Your task to perform on an android device: Go to Android settings Image 0: 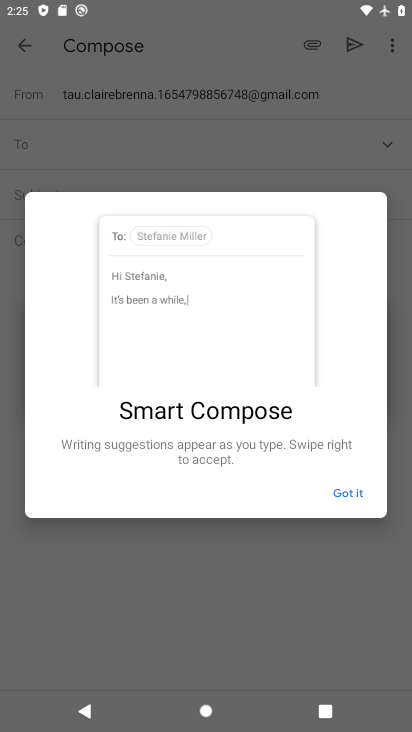
Step 0: drag from (217, 631) to (238, 21)
Your task to perform on an android device: Go to Android settings Image 1: 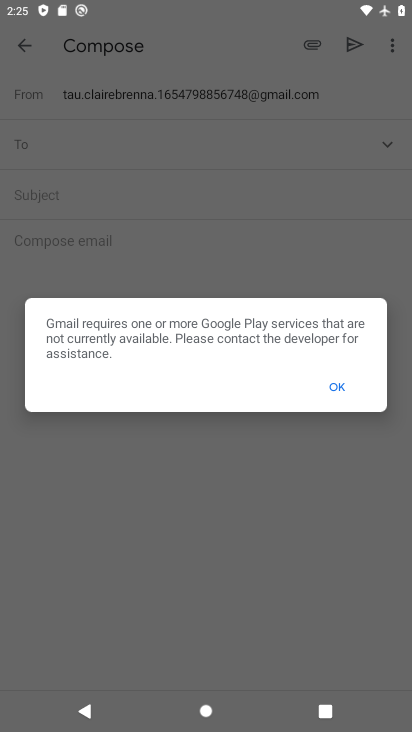
Step 1: press home button
Your task to perform on an android device: Go to Android settings Image 2: 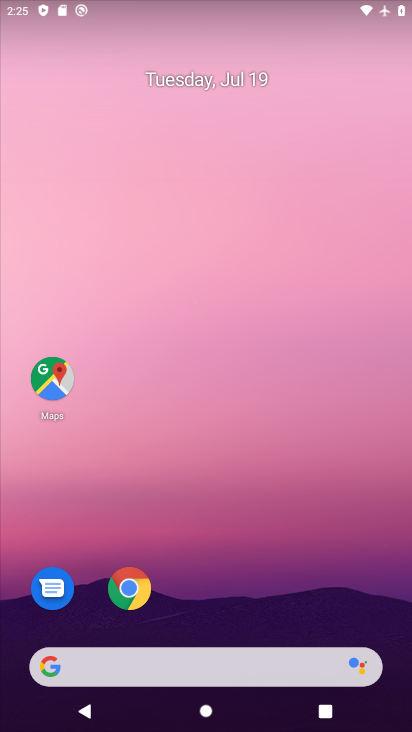
Step 2: drag from (219, 625) to (244, 6)
Your task to perform on an android device: Go to Android settings Image 3: 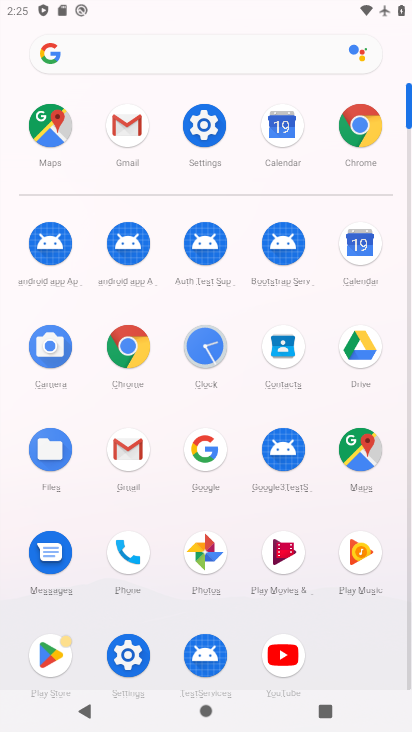
Step 3: click (194, 118)
Your task to perform on an android device: Go to Android settings Image 4: 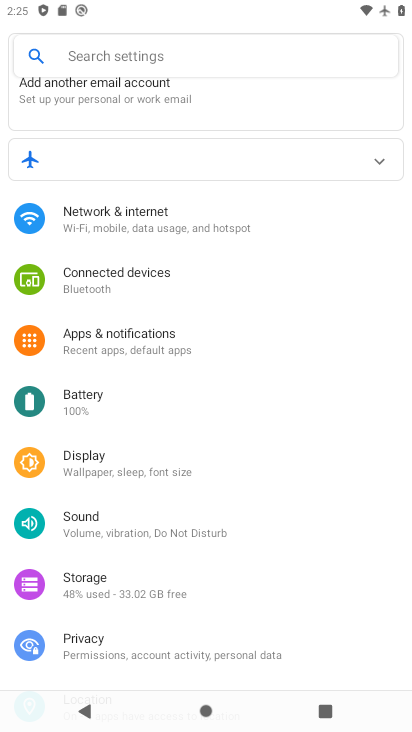
Step 4: task complete